Your task to perform on an android device: change text size in settings app Image 0: 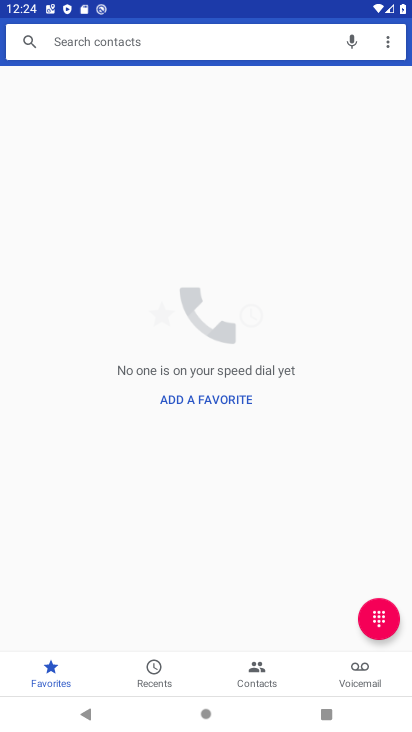
Step 0: press home button
Your task to perform on an android device: change text size in settings app Image 1: 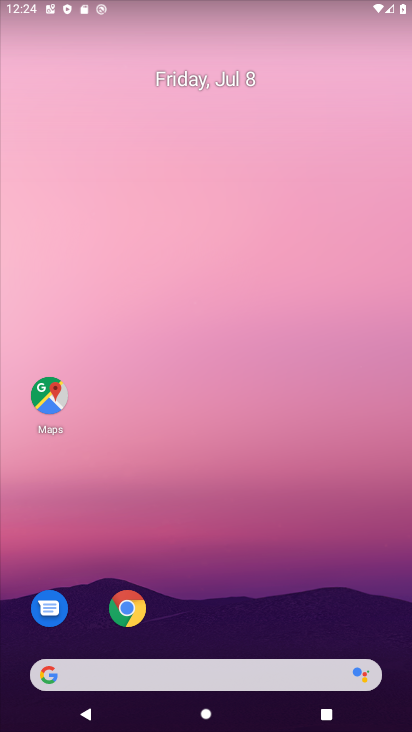
Step 1: drag from (254, 577) to (149, 0)
Your task to perform on an android device: change text size in settings app Image 2: 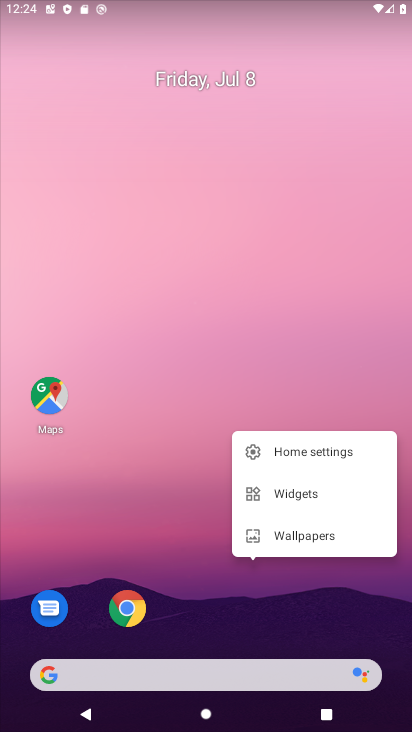
Step 2: click (205, 266)
Your task to perform on an android device: change text size in settings app Image 3: 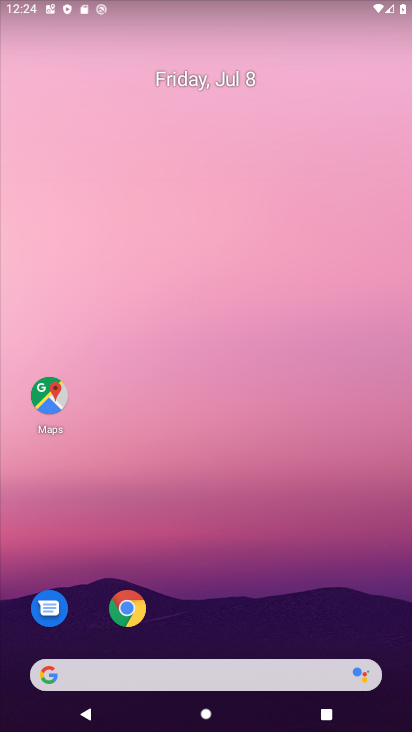
Step 3: drag from (231, 551) to (214, 99)
Your task to perform on an android device: change text size in settings app Image 4: 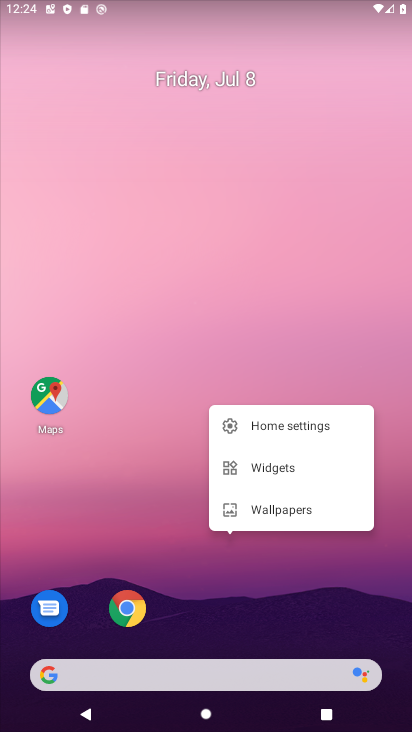
Step 4: click (214, 249)
Your task to perform on an android device: change text size in settings app Image 5: 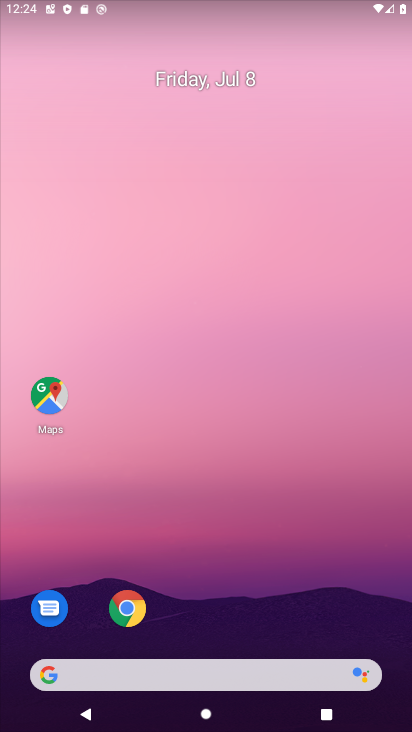
Step 5: drag from (277, 571) to (245, 167)
Your task to perform on an android device: change text size in settings app Image 6: 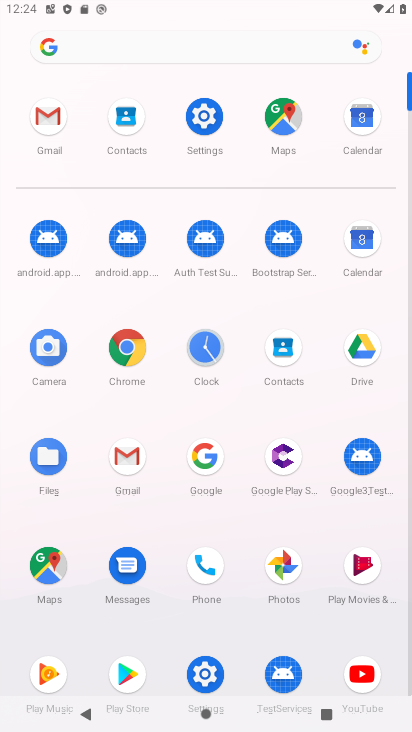
Step 6: click (219, 151)
Your task to perform on an android device: change text size in settings app Image 7: 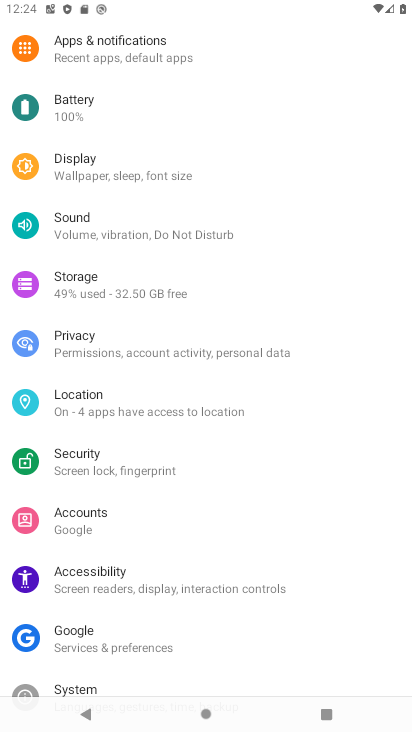
Step 7: click (175, 173)
Your task to perform on an android device: change text size in settings app Image 8: 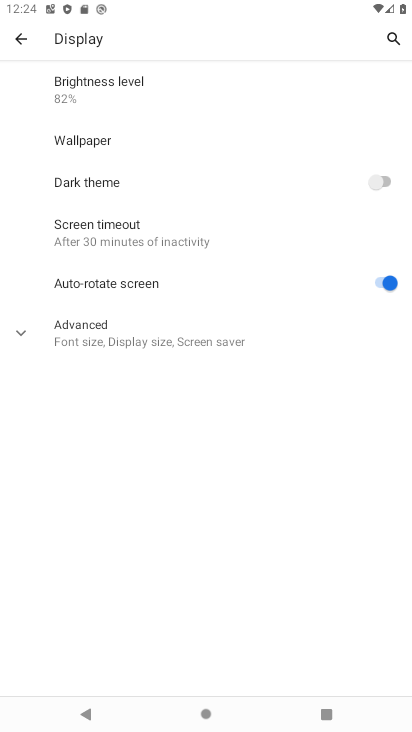
Step 8: click (181, 334)
Your task to perform on an android device: change text size in settings app Image 9: 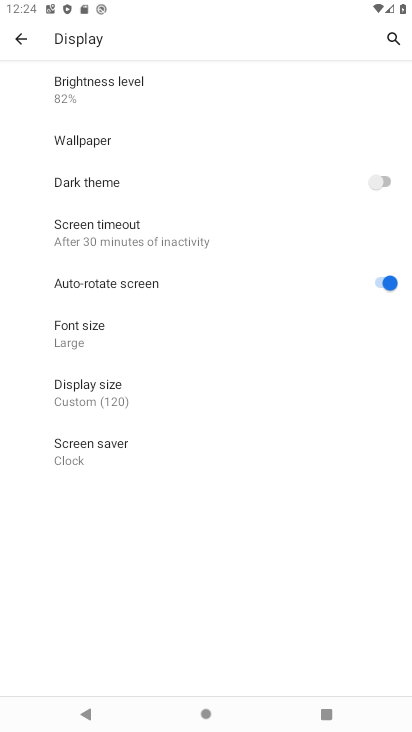
Step 9: click (181, 334)
Your task to perform on an android device: change text size in settings app Image 10: 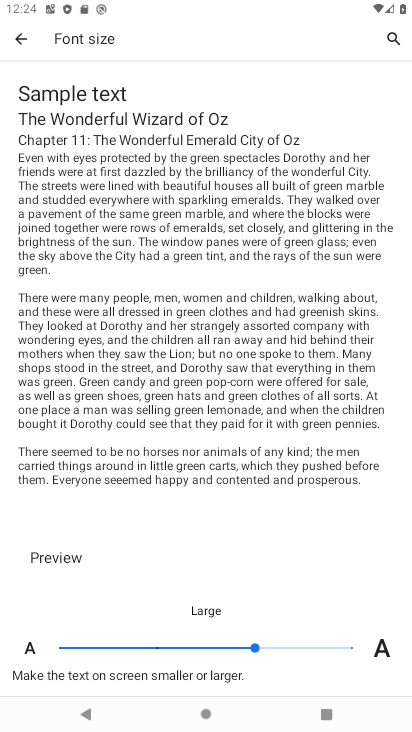
Step 10: click (343, 644)
Your task to perform on an android device: change text size in settings app Image 11: 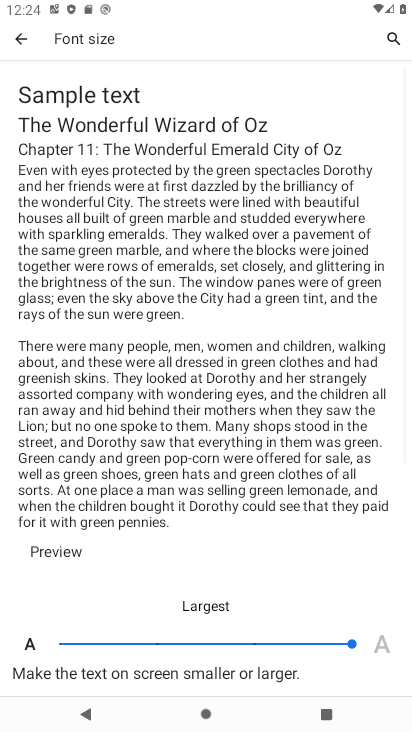
Step 11: task complete